Your task to perform on an android device: turn on sleep mode Image 0: 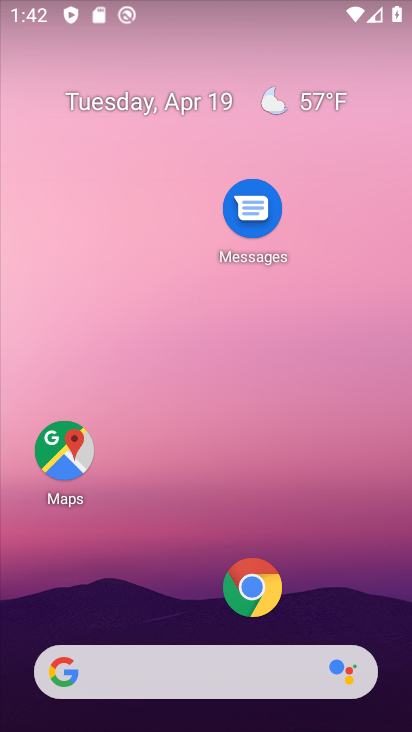
Step 0: drag from (155, 644) to (203, 43)
Your task to perform on an android device: turn on sleep mode Image 1: 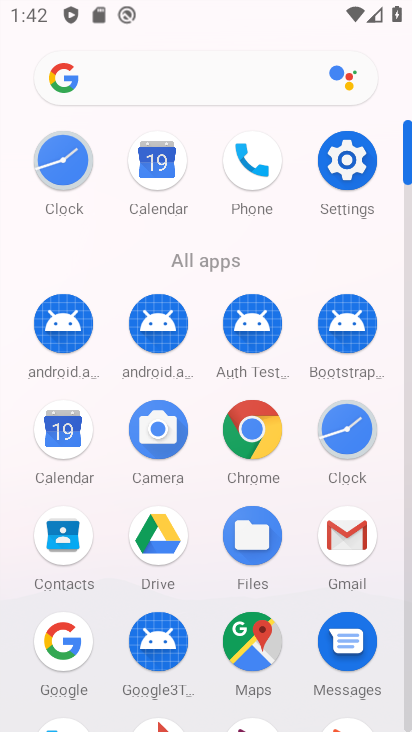
Step 1: click (342, 172)
Your task to perform on an android device: turn on sleep mode Image 2: 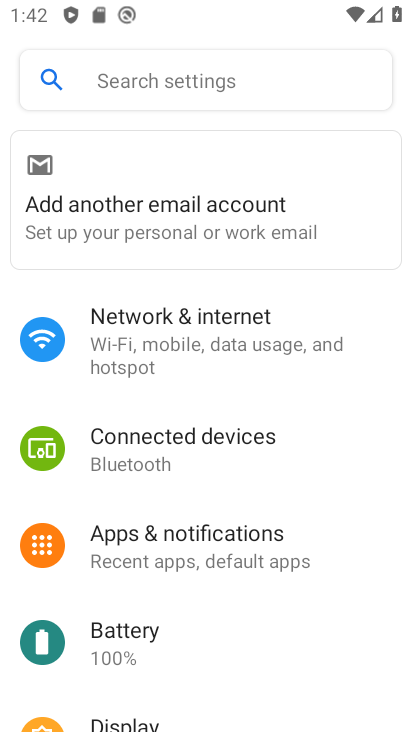
Step 2: drag from (228, 642) to (287, 358)
Your task to perform on an android device: turn on sleep mode Image 3: 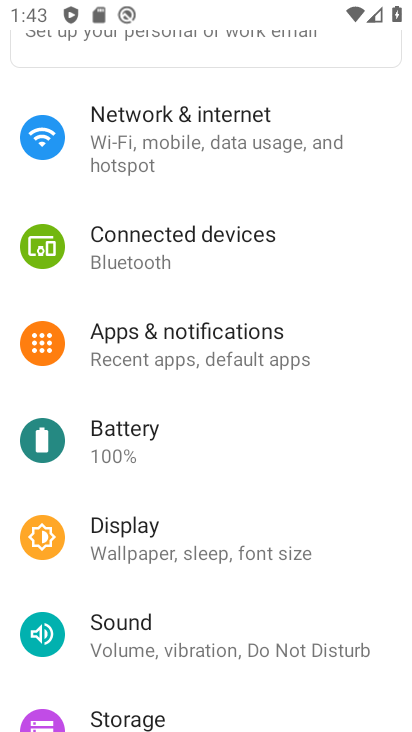
Step 3: click (191, 552)
Your task to perform on an android device: turn on sleep mode Image 4: 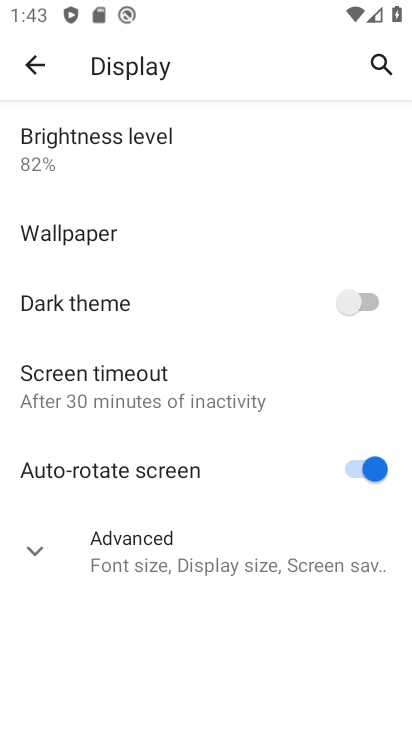
Step 4: click (168, 561)
Your task to perform on an android device: turn on sleep mode Image 5: 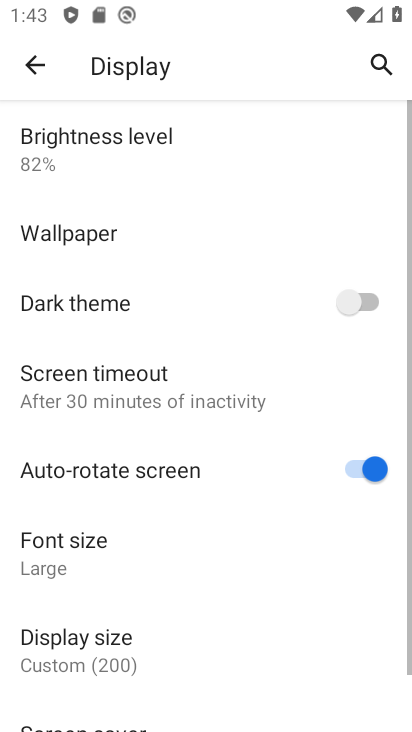
Step 5: task complete